Your task to perform on an android device: Show the shopping cart on costco.com. Search for "asus zenbook" on costco.com, select the first entry, and add it to the cart. Image 0: 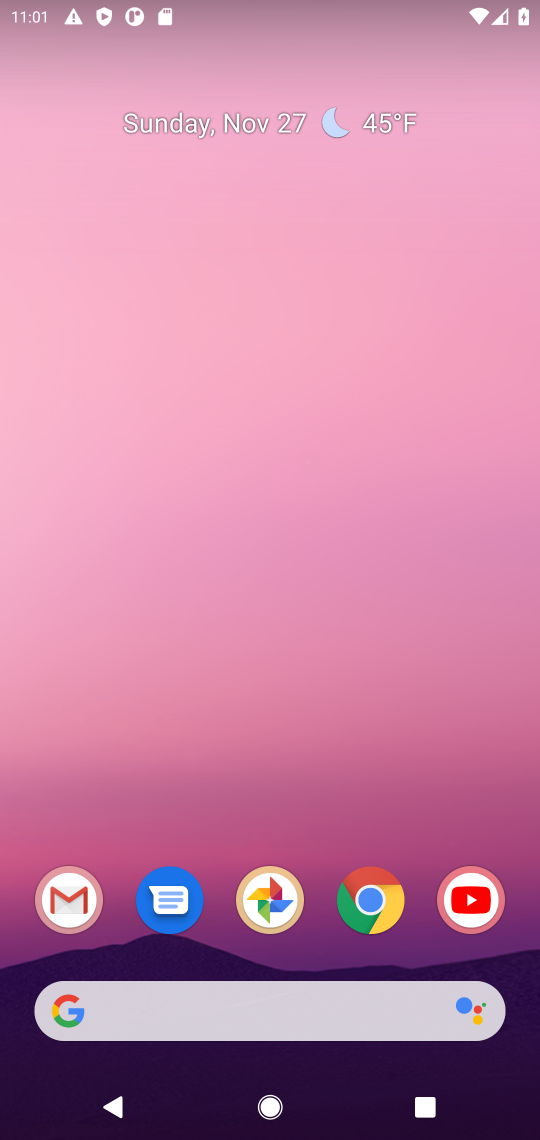
Step 0: click (368, 896)
Your task to perform on an android device: Show the shopping cart on costco.com. Search for "asus zenbook" on costco.com, select the first entry, and add it to the cart. Image 1: 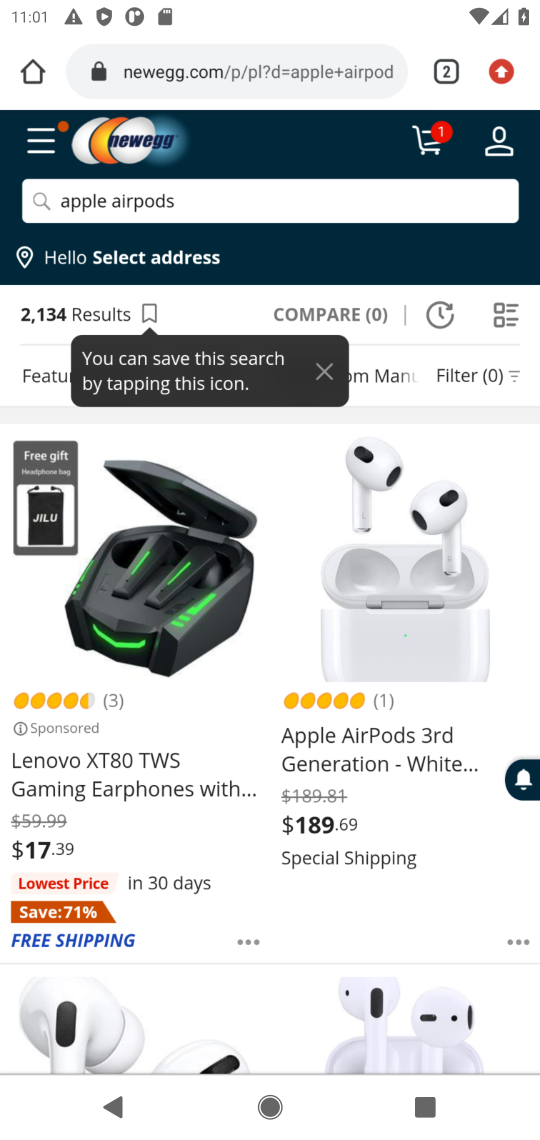
Step 1: click (202, 69)
Your task to perform on an android device: Show the shopping cart on costco.com. Search for "asus zenbook" on costco.com, select the first entry, and add it to the cart. Image 2: 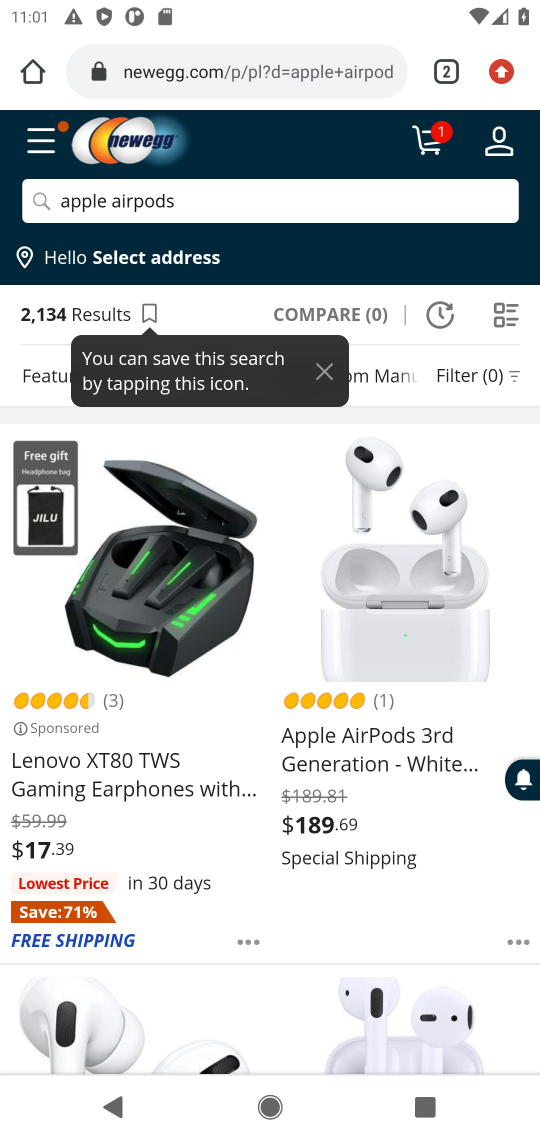
Step 2: click (189, 75)
Your task to perform on an android device: Show the shopping cart on costco.com. Search for "asus zenbook" on costco.com, select the first entry, and add it to the cart. Image 3: 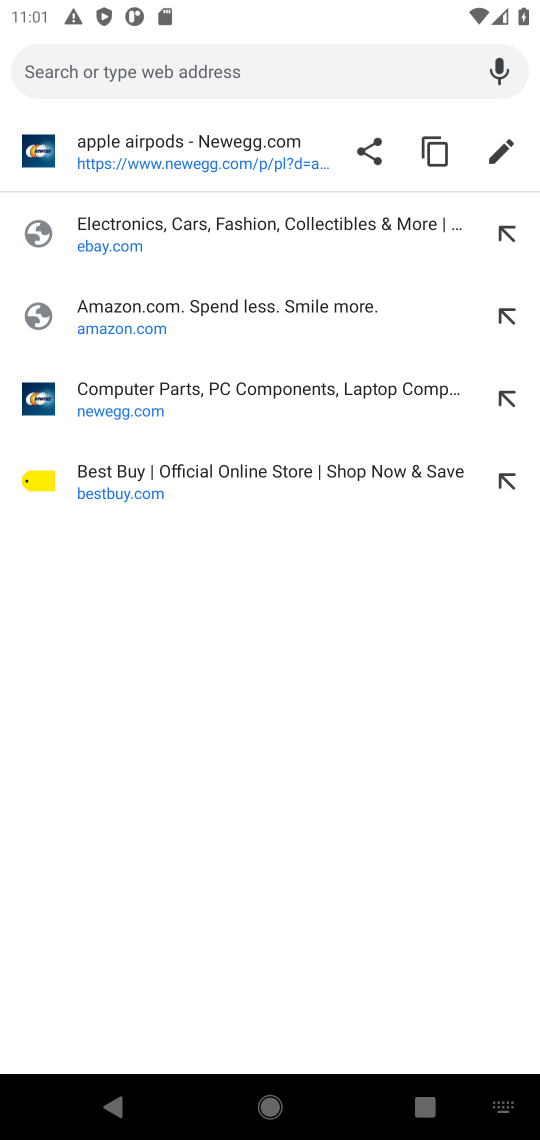
Step 3: type "costco.com"
Your task to perform on an android device: Show the shopping cart on costco.com. Search for "asus zenbook" on costco.com, select the first entry, and add it to the cart. Image 4: 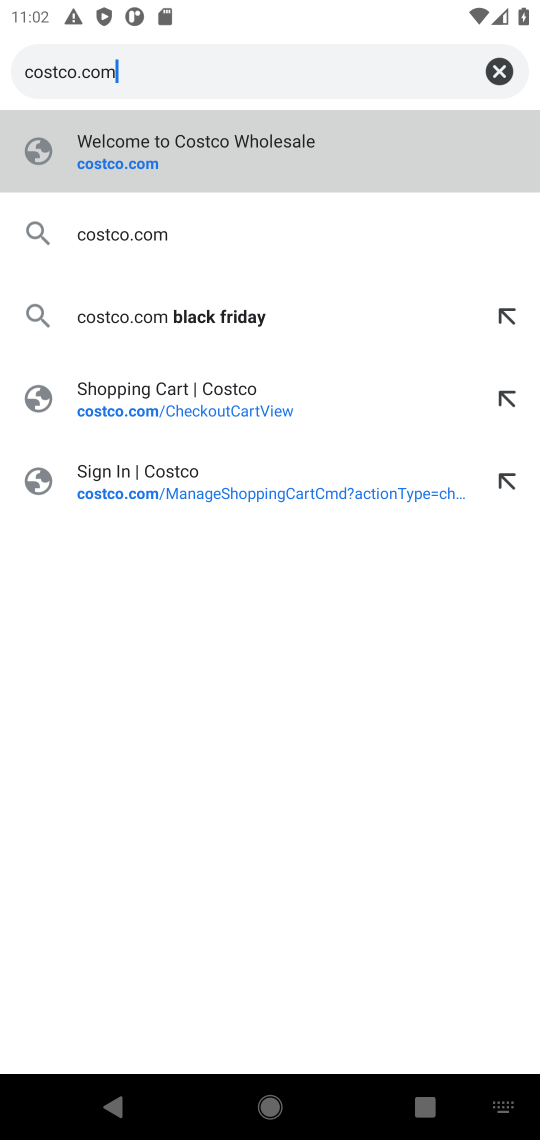
Step 4: click (130, 151)
Your task to perform on an android device: Show the shopping cart on costco.com. Search for "asus zenbook" on costco.com, select the first entry, and add it to the cart. Image 5: 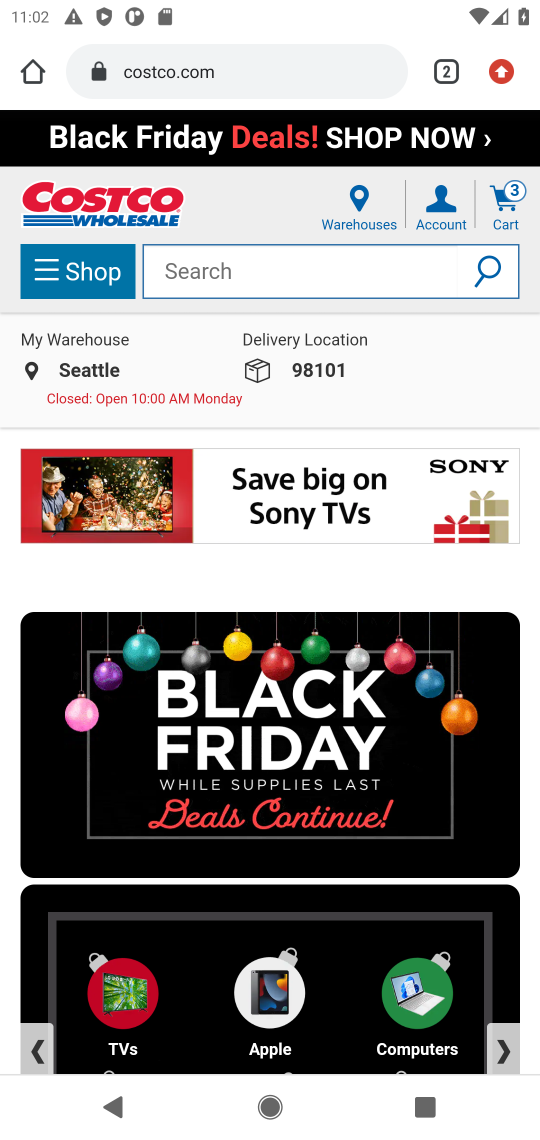
Step 5: click (507, 204)
Your task to perform on an android device: Show the shopping cart on costco.com. Search for "asus zenbook" on costco.com, select the first entry, and add it to the cart. Image 6: 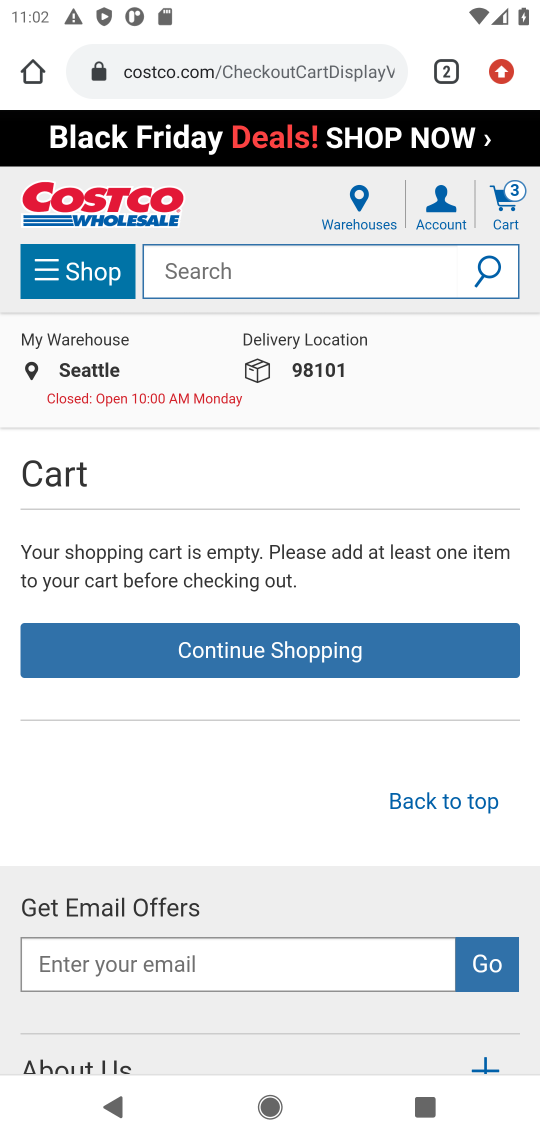
Step 6: click (163, 280)
Your task to perform on an android device: Show the shopping cart on costco.com. Search for "asus zenbook" on costco.com, select the first entry, and add it to the cart. Image 7: 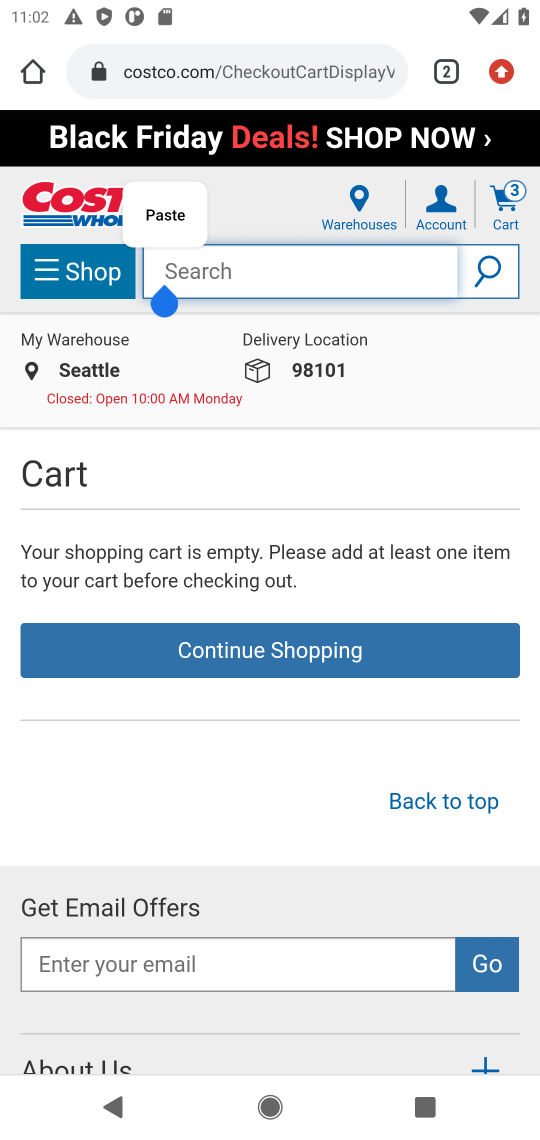
Step 7: type "asus zenbook"
Your task to perform on an android device: Show the shopping cart on costco.com. Search for "asus zenbook" on costco.com, select the first entry, and add it to the cart. Image 8: 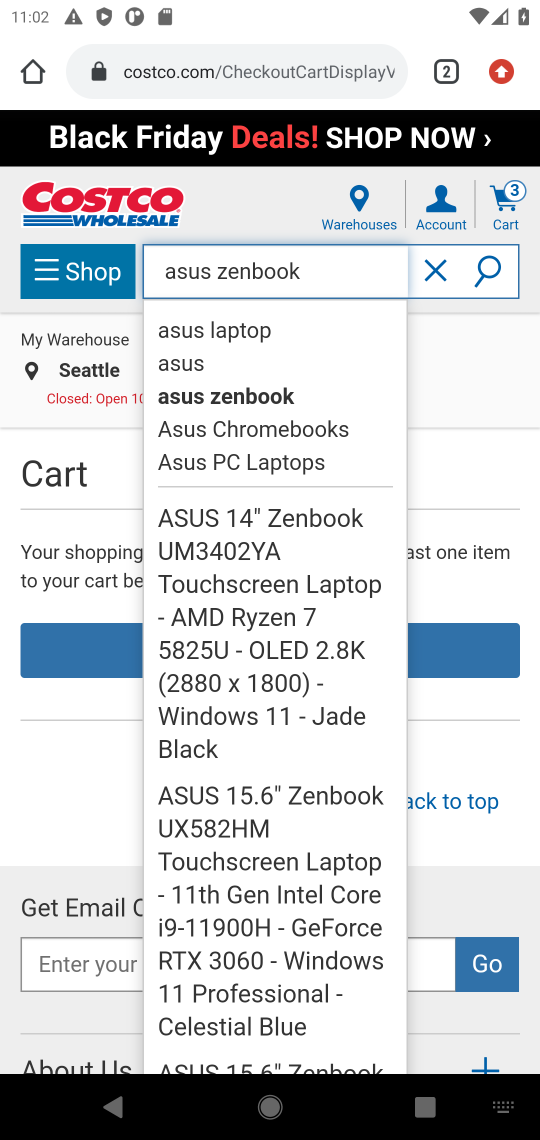
Step 8: click (478, 273)
Your task to perform on an android device: Show the shopping cart on costco.com. Search for "asus zenbook" on costco.com, select the first entry, and add it to the cart. Image 9: 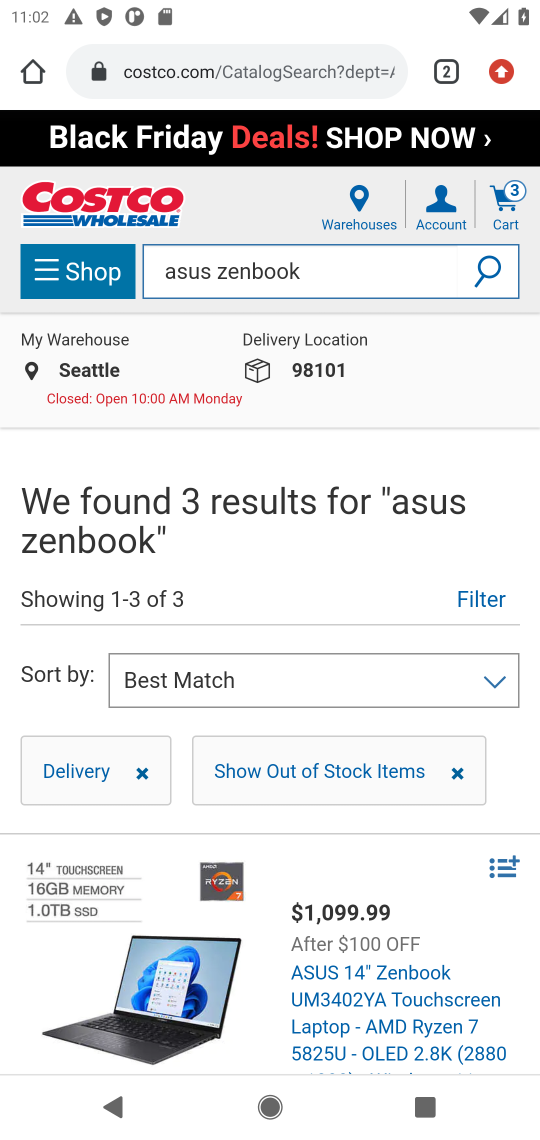
Step 9: drag from (250, 841) to (291, 478)
Your task to perform on an android device: Show the shopping cart on costco.com. Search for "asus zenbook" on costco.com, select the first entry, and add it to the cart. Image 10: 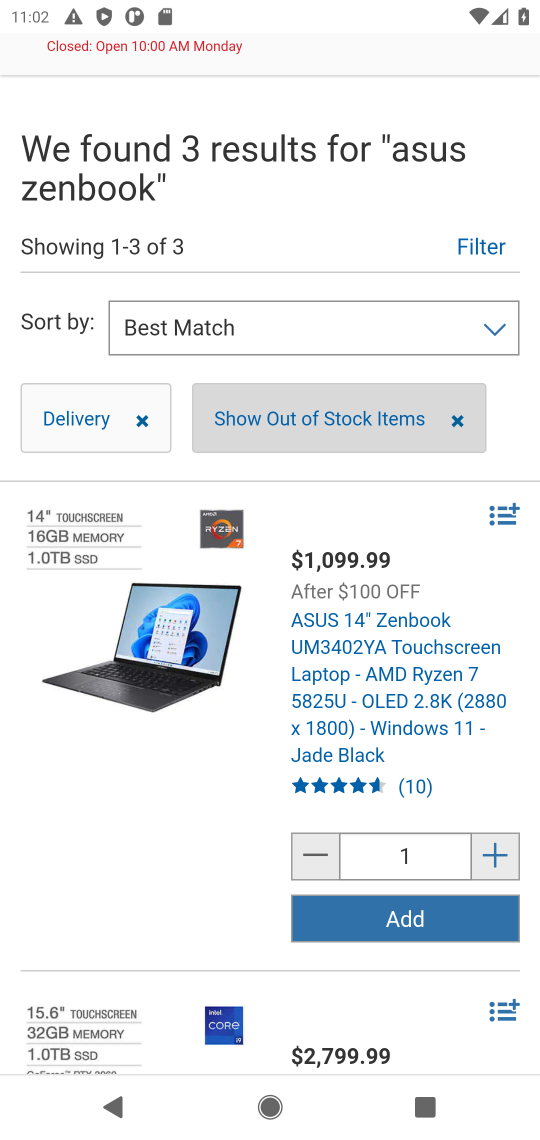
Step 10: click (378, 923)
Your task to perform on an android device: Show the shopping cart on costco.com. Search for "asus zenbook" on costco.com, select the first entry, and add it to the cart. Image 11: 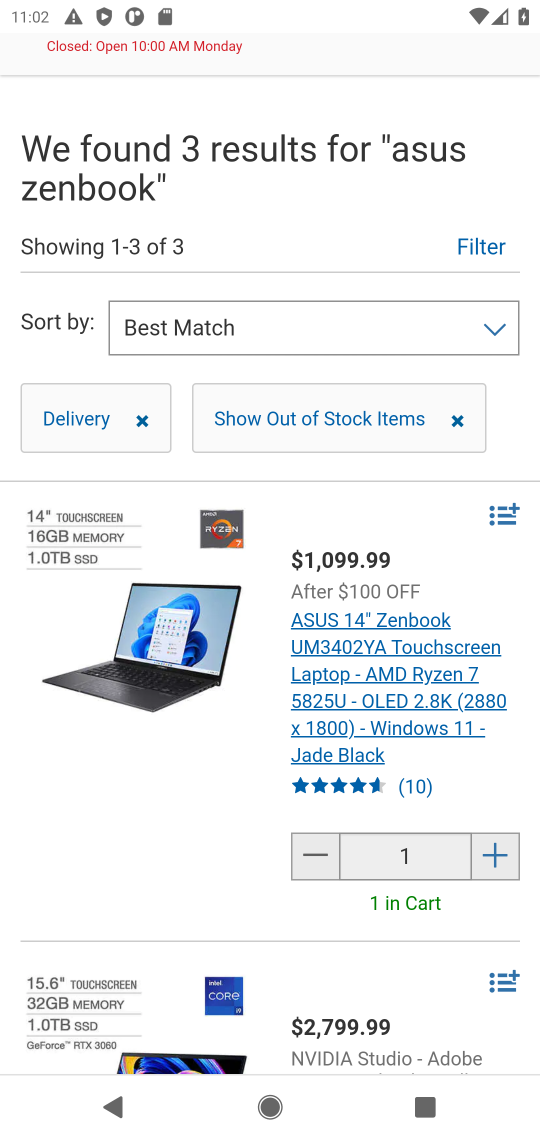
Step 11: task complete